Your task to perform on an android device: Search for top rated sushi restaurants on Maps Image 0: 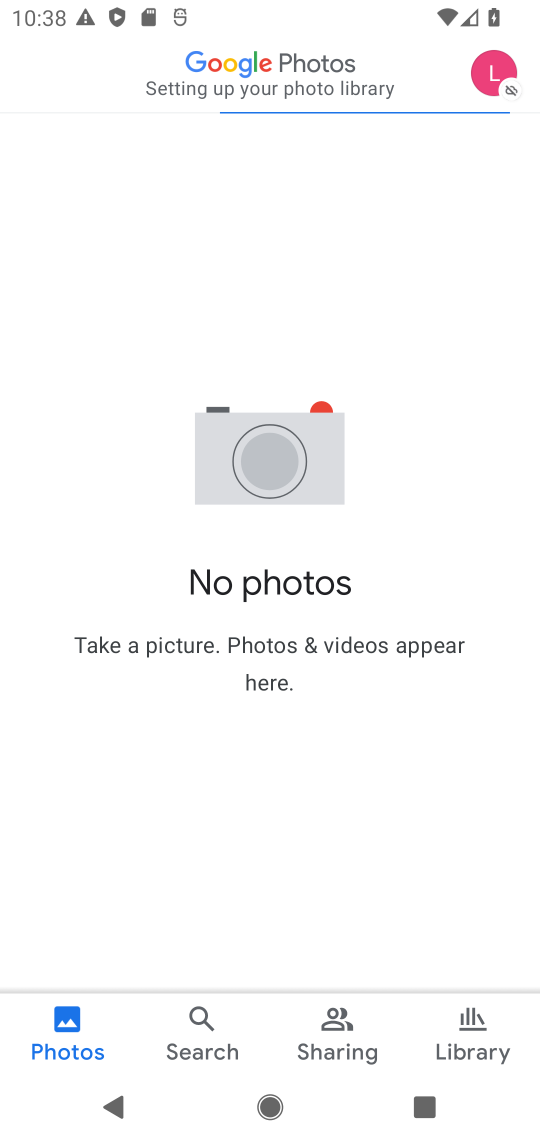
Step 0: press home button
Your task to perform on an android device: Search for top rated sushi restaurants on Maps Image 1: 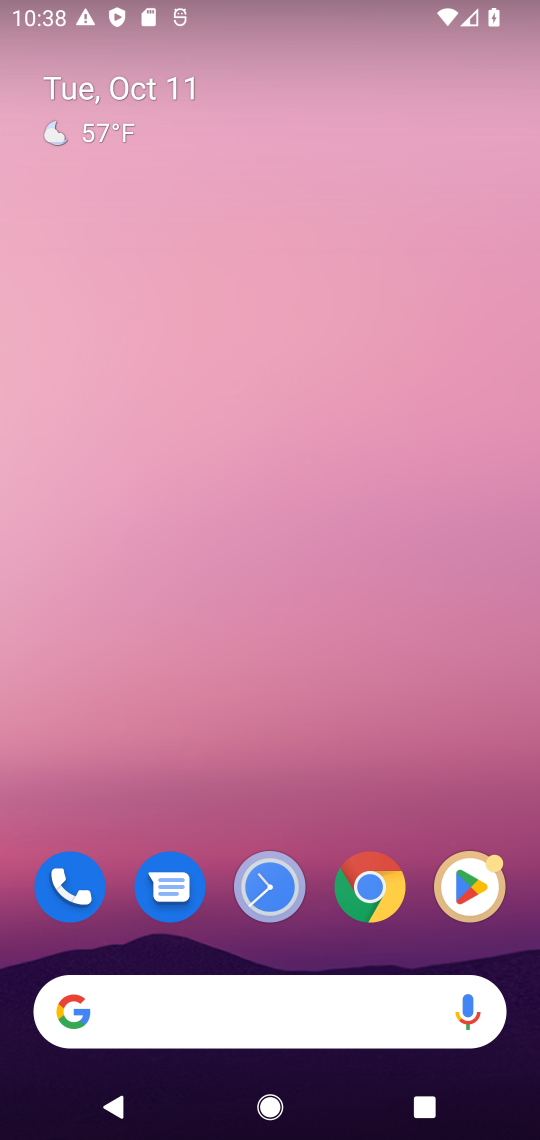
Step 1: drag from (482, 601) to (486, 80)
Your task to perform on an android device: Search for top rated sushi restaurants on Maps Image 2: 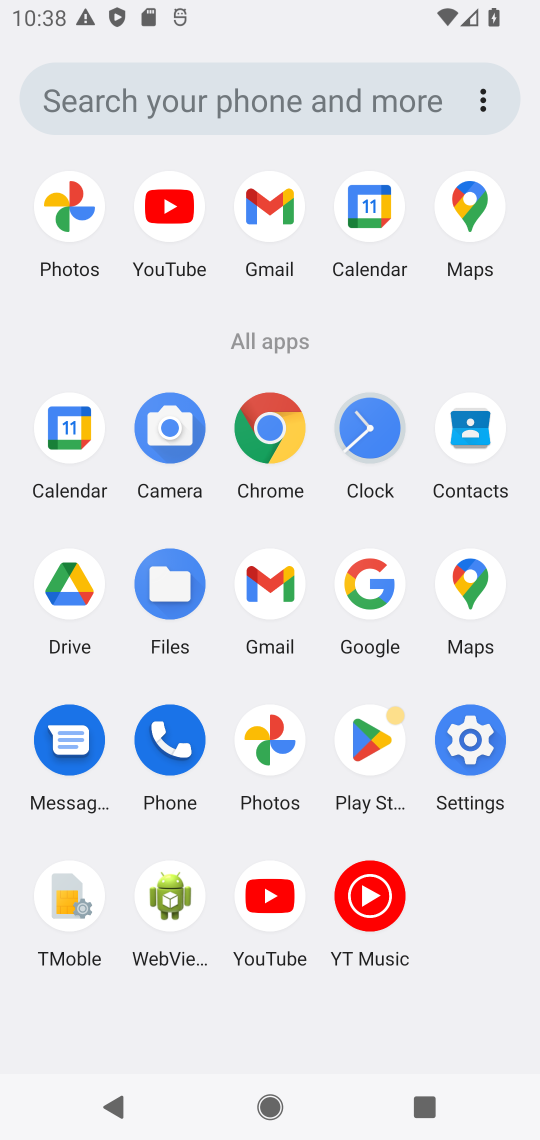
Step 2: click (471, 218)
Your task to perform on an android device: Search for top rated sushi restaurants on Maps Image 3: 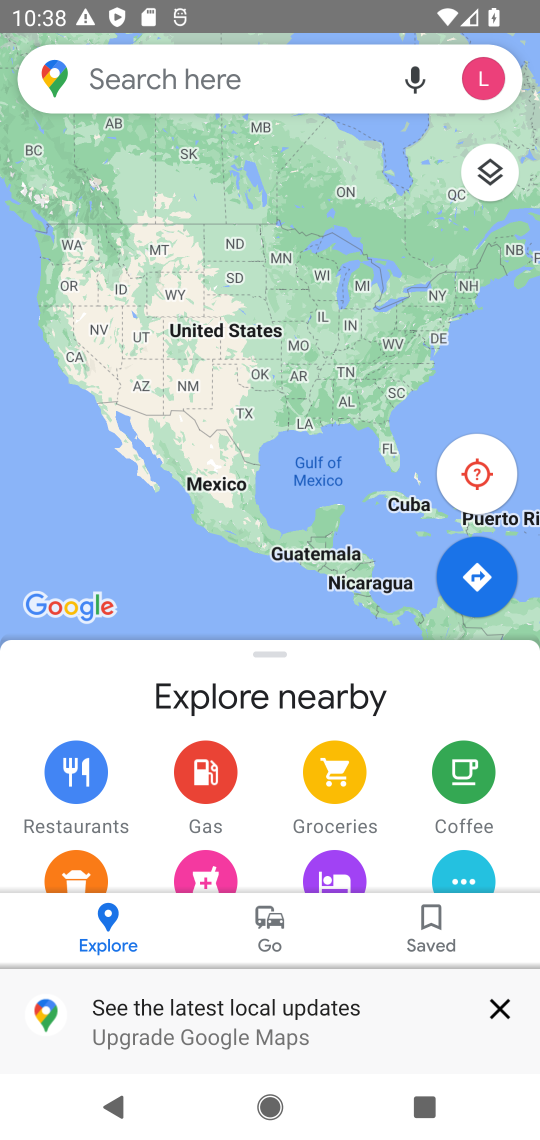
Step 3: click (213, 91)
Your task to perform on an android device: Search for top rated sushi restaurants on Maps Image 4: 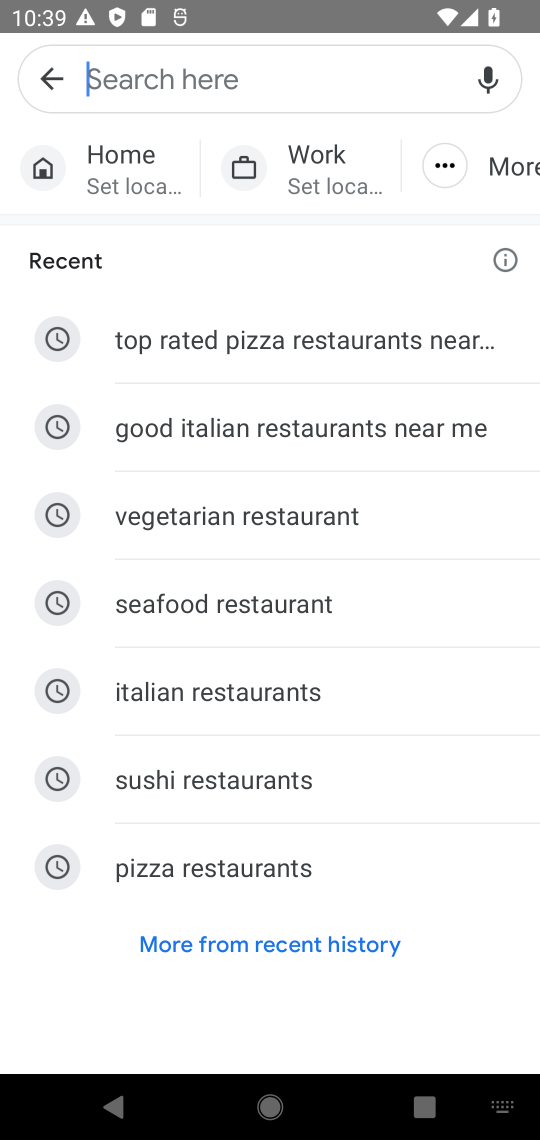
Step 4: type "sushi restaurants"
Your task to perform on an android device: Search for top rated sushi restaurants on Maps Image 5: 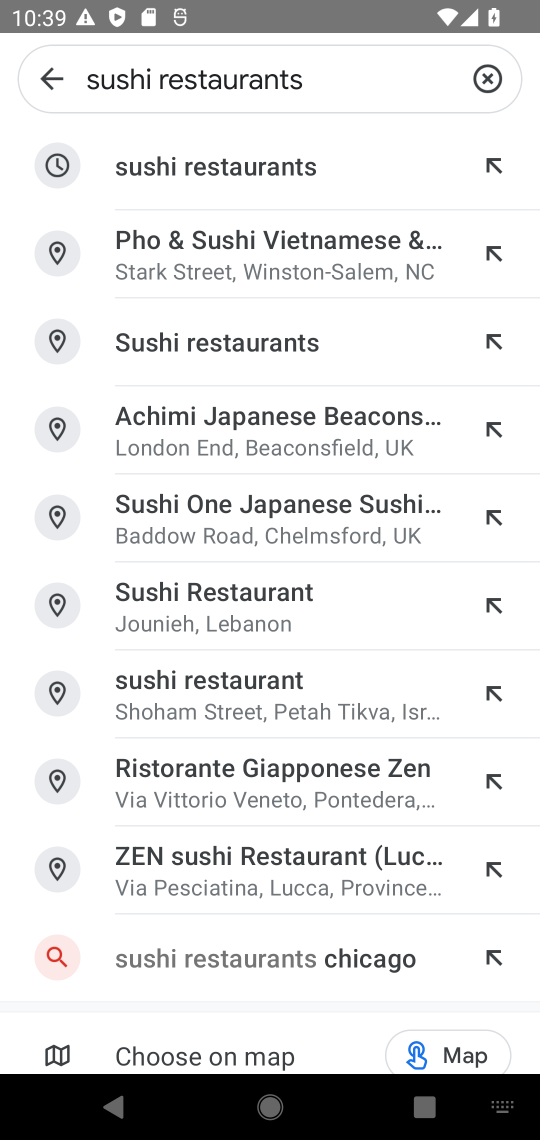
Step 5: click (301, 152)
Your task to perform on an android device: Search for top rated sushi restaurants on Maps Image 6: 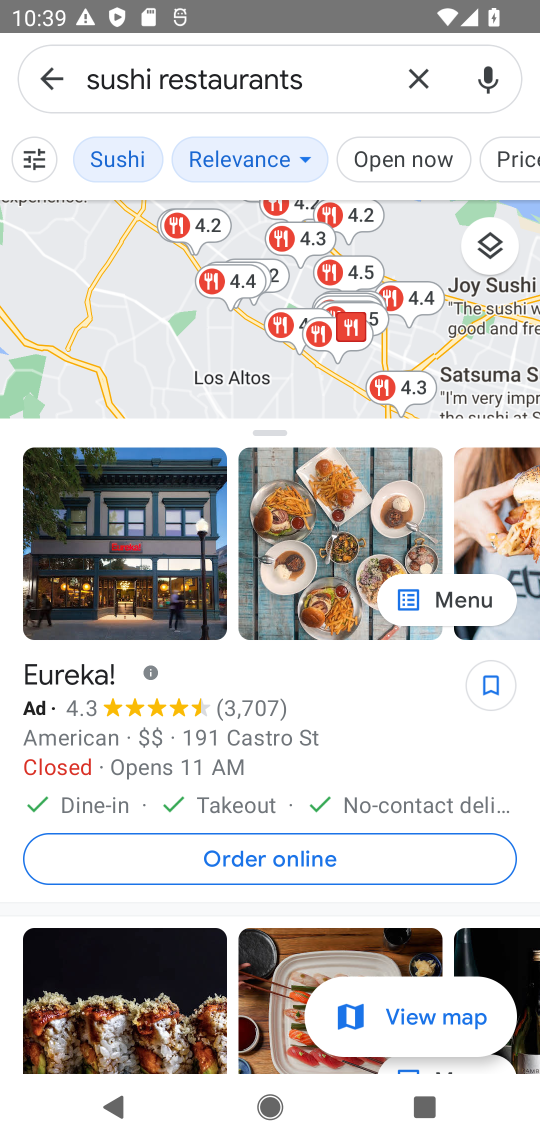
Step 6: task complete